Your task to perform on an android device: turn on wifi Image 0: 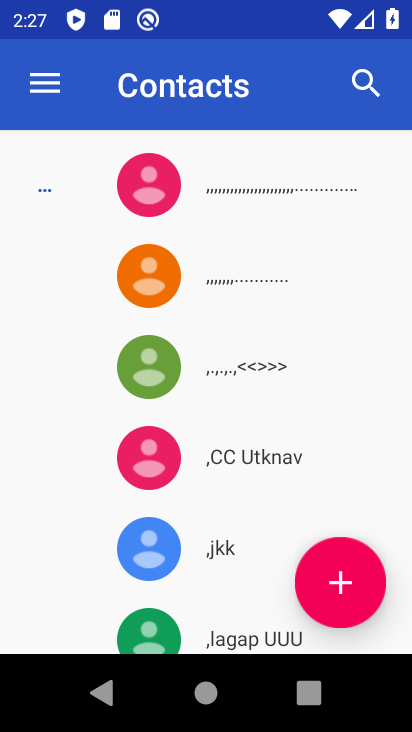
Step 0: press home button
Your task to perform on an android device: turn on wifi Image 1: 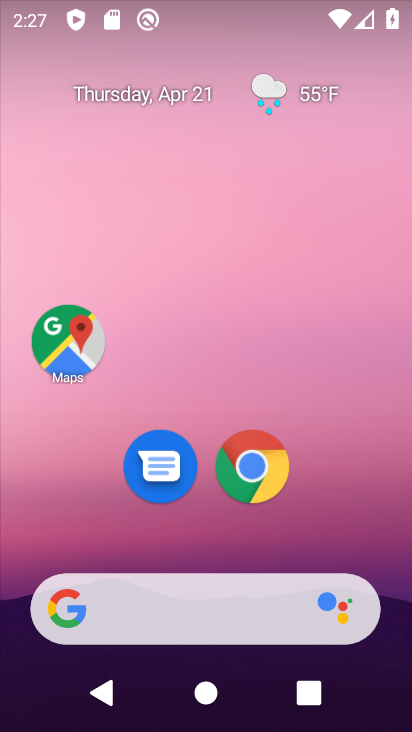
Step 1: drag from (323, 572) to (317, 133)
Your task to perform on an android device: turn on wifi Image 2: 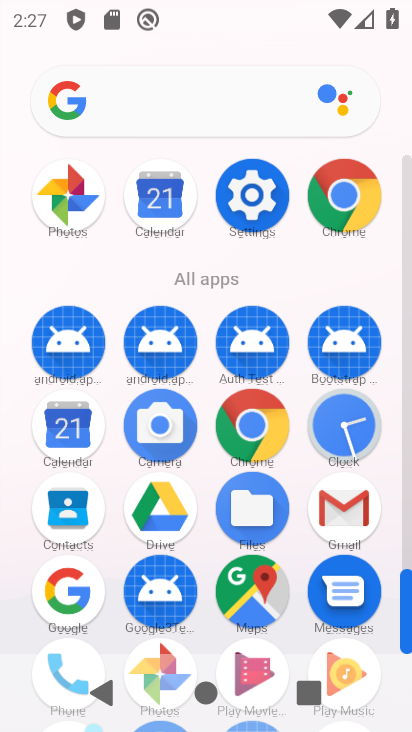
Step 2: click (248, 201)
Your task to perform on an android device: turn on wifi Image 3: 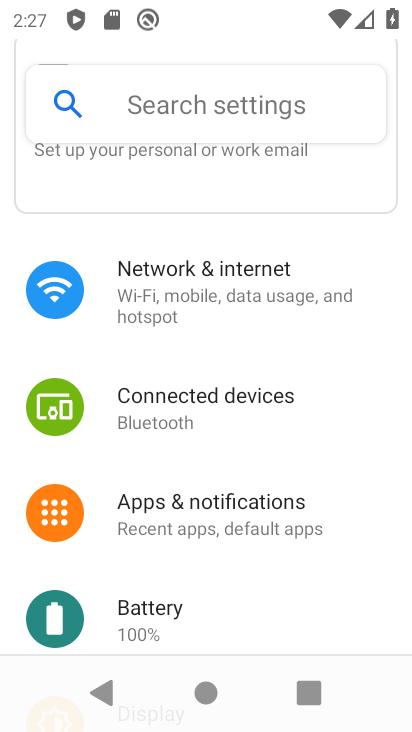
Step 3: click (212, 303)
Your task to perform on an android device: turn on wifi Image 4: 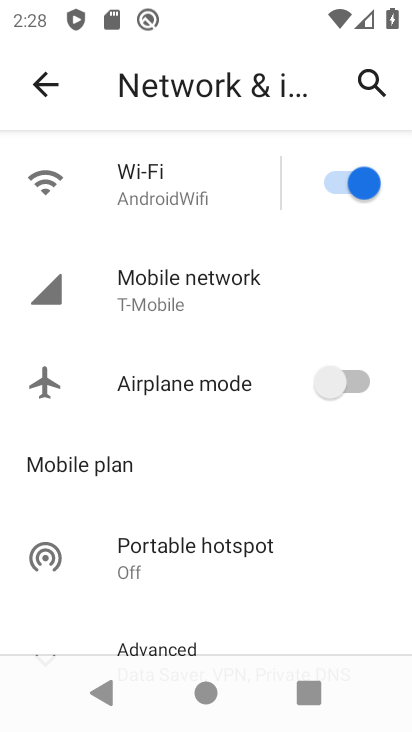
Step 4: task complete